Your task to perform on an android device: turn smart compose on in the gmail app Image 0: 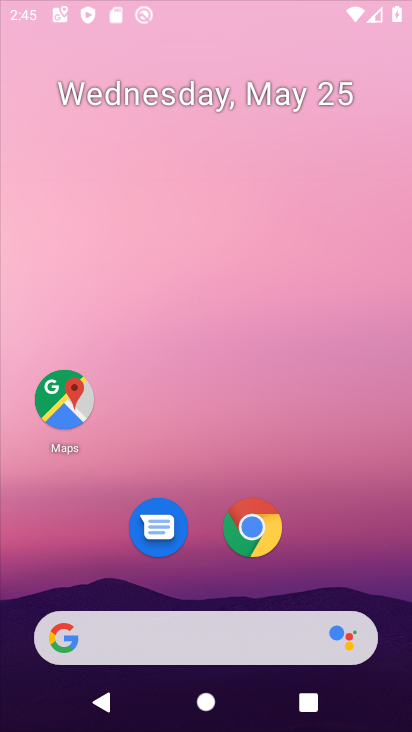
Step 0: drag from (222, 470) to (244, 83)
Your task to perform on an android device: turn smart compose on in the gmail app Image 1: 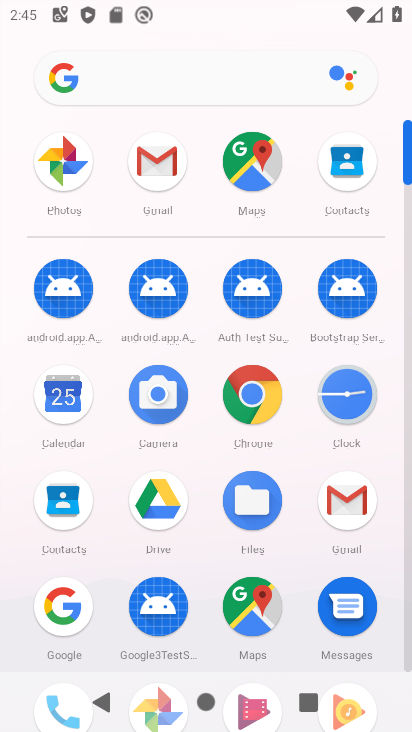
Step 1: click (356, 494)
Your task to perform on an android device: turn smart compose on in the gmail app Image 2: 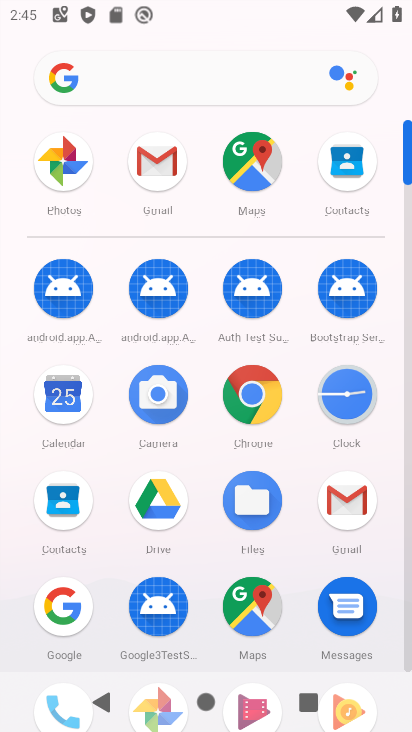
Step 2: click (356, 494)
Your task to perform on an android device: turn smart compose on in the gmail app Image 3: 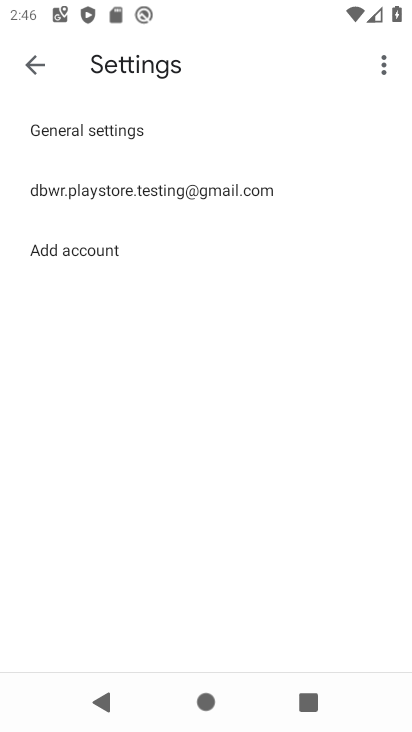
Step 3: click (156, 190)
Your task to perform on an android device: turn smart compose on in the gmail app Image 4: 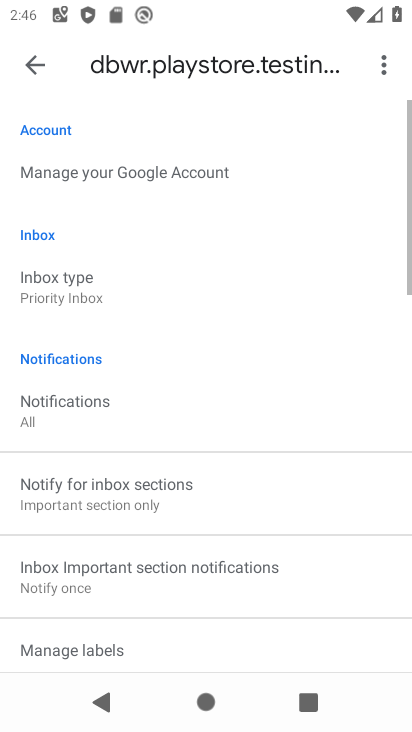
Step 4: task complete